Your task to perform on an android device: Go to privacy settings Image 0: 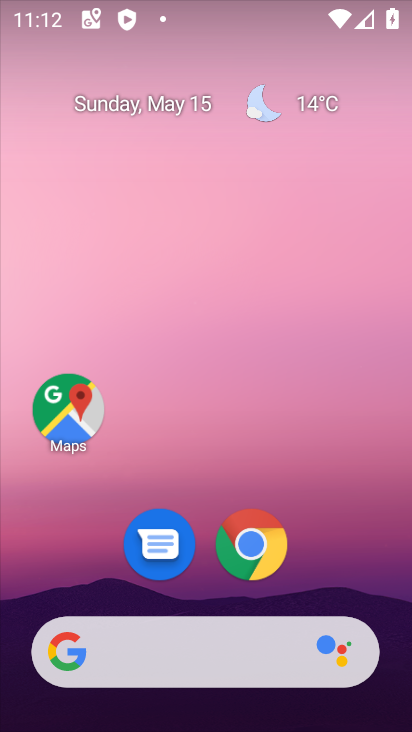
Step 0: click (258, 554)
Your task to perform on an android device: Go to privacy settings Image 1: 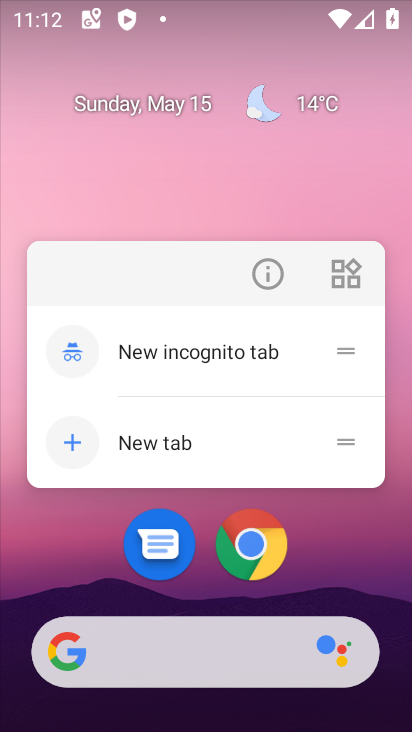
Step 1: click (262, 547)
Your task to perform on an android device: Go to privacy settings Image 2: 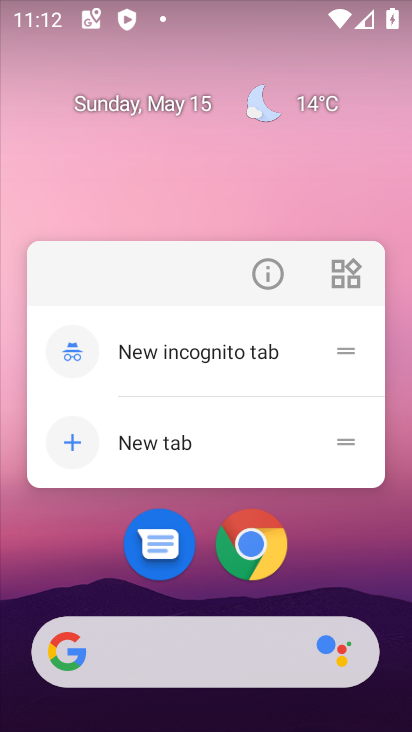
Step 2: click (261, 550)
Your task to perform on an android device: Go to privacy settings Image 3: 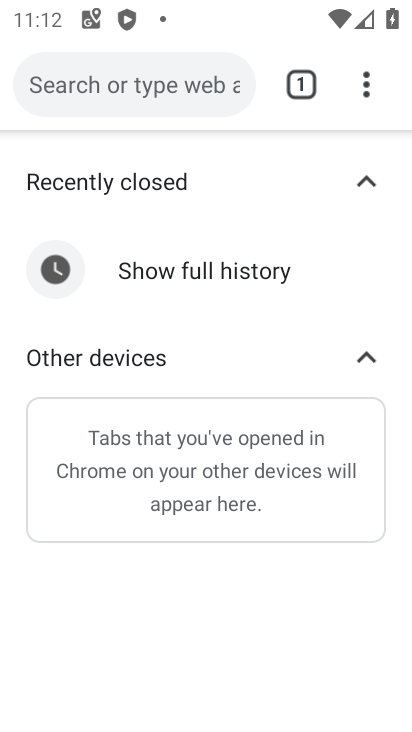
Step 3: drag from (367, 71) to (220, 581)
Your task to perform on an android device: Go to privacy settings Image 4: 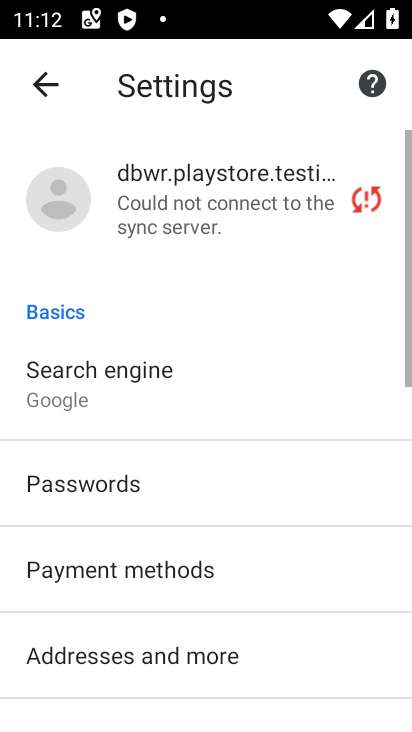
Step 4: drag from (199, 657) to (279, 340)
Your task to perform on an android device: Go to privacy settings Image 5: 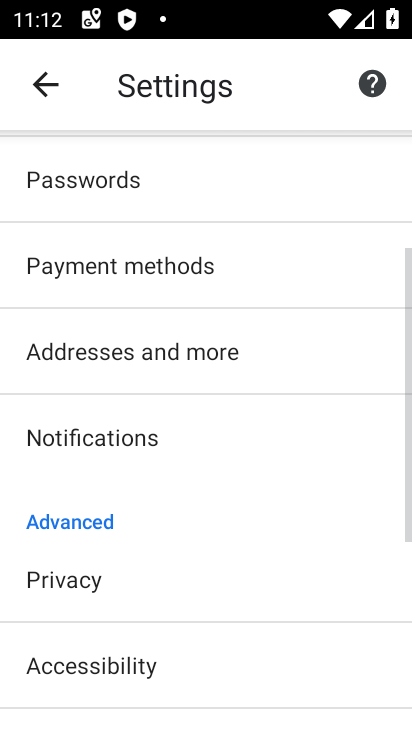
Step 5: click (182, 583)
Your task to perform on an android device: Go to privacy settings Image 6: 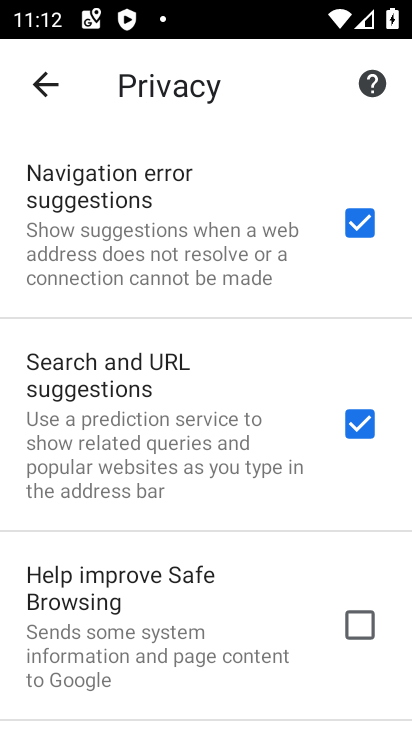
Step 6: task complete